Your task to perform on an android device: allow cookies in the chrome app Image 0: 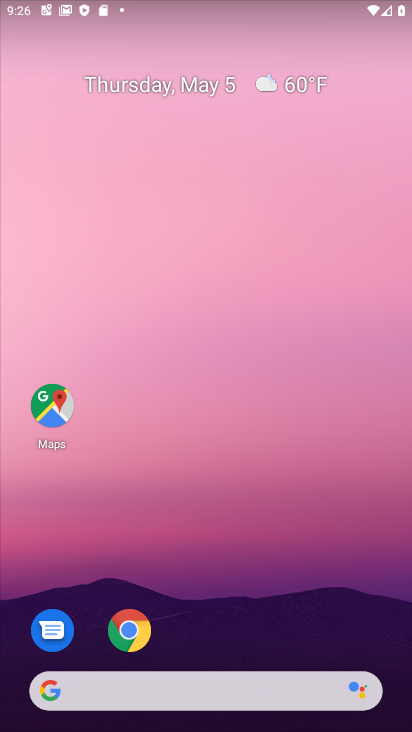
Step 0: click (131, 631)
Your task to perform on an android device: allow cookies in the chrome app Image 1: 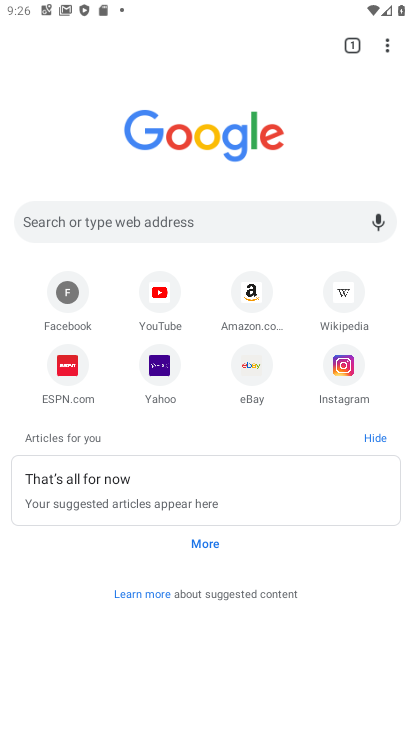
Step 1: click (394, 50)
Your task to perform on an android device: allow cookies in the chrome app Image 2: 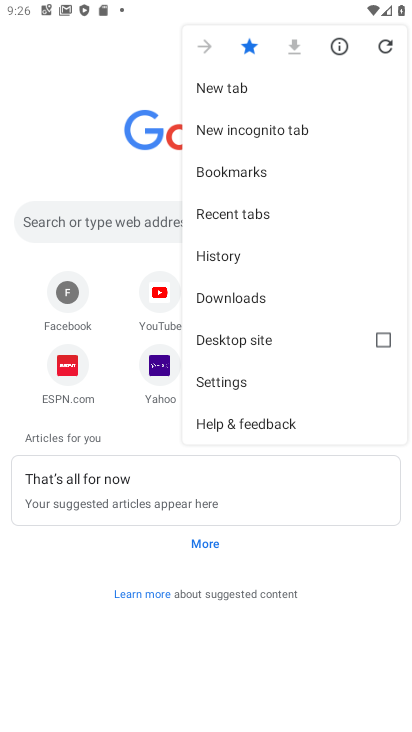
Step 2: click (246, 389)
Your task to perform on an android device: allow cookies in the chrome app Image 3: 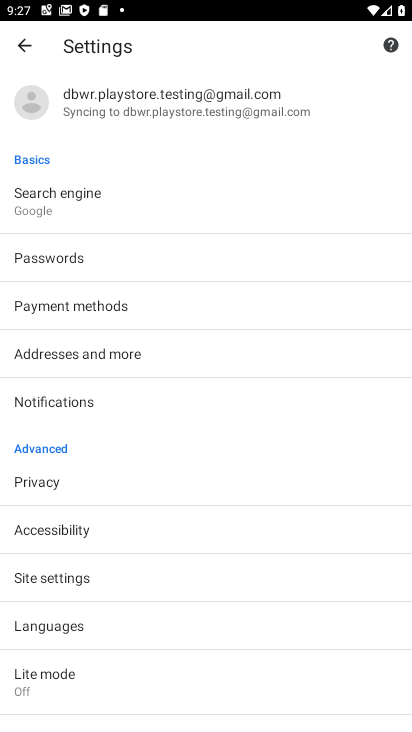
Step 3: click (118, 579)
Your task to perform on an android device: allow cookies in the chrome app Image 4: 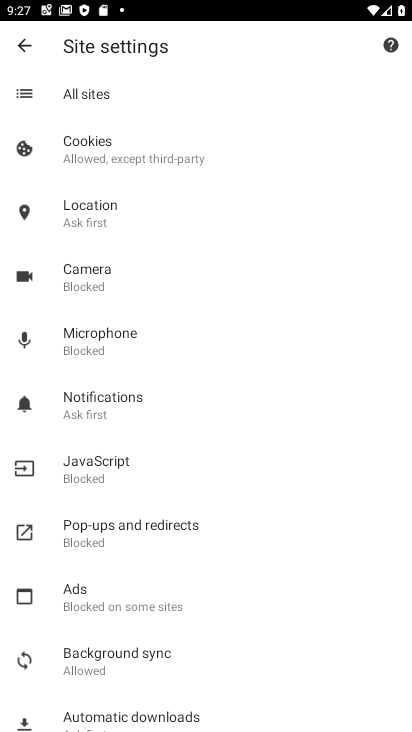
Step 4: drag from (182, 630) to (163, 393)
Your task to perform on an android device: allow cookies in the chrome app Image 5: 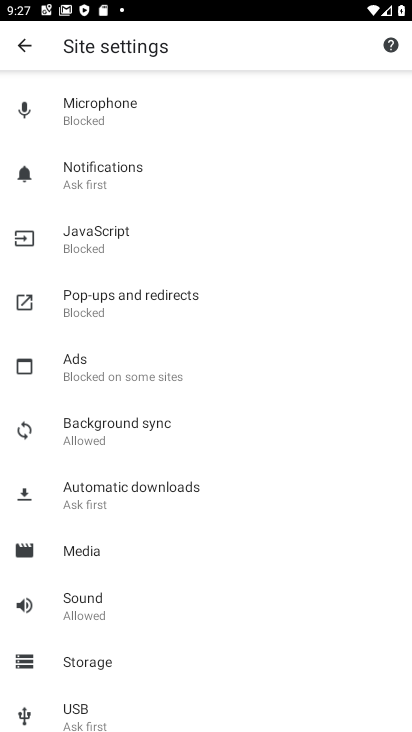
Step 5: drag from (157, 180) to (146, 364)
Your task to perform on an android device: allow cookies in the chrome app Image 6: 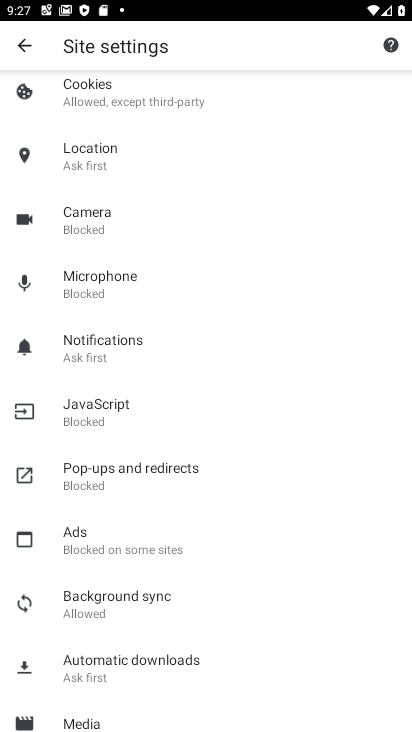
Step 6: drag from (156, 248) to (152, 424)
Your task to perform on an android device: allow cookies in the chrome app Image 7: 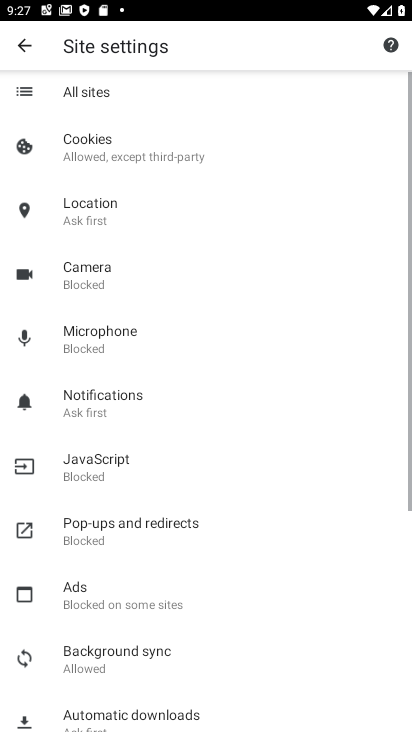
Step 7: click (128, 155)
Your task to perform on an android device: allow cookies in the chrome app Image 8: 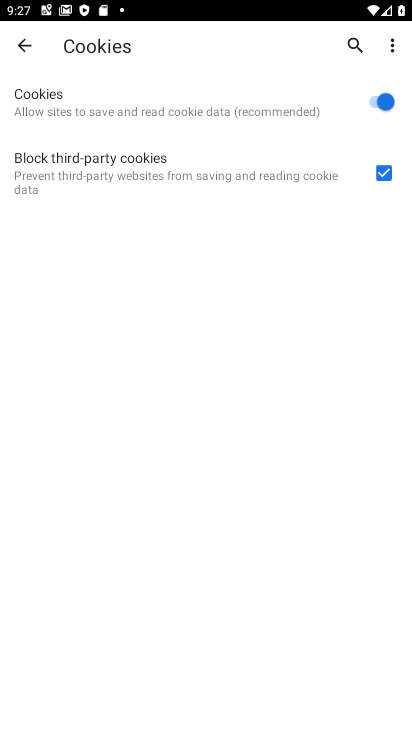
Step 8: click (382, 181)
Your task to perform on an android device: allow cookies in the chrome app Image 9: 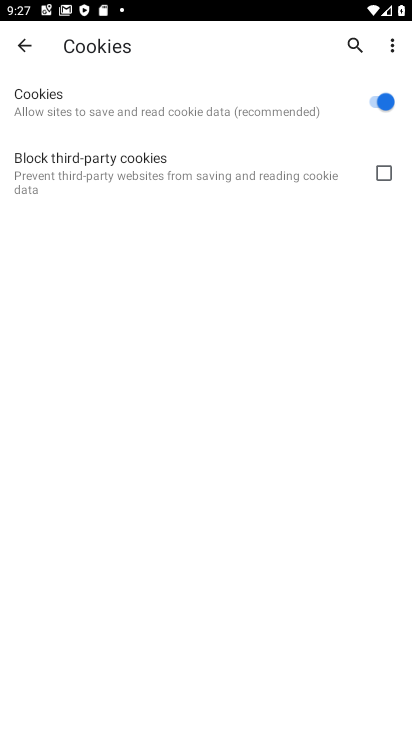
Step 9: task complete